Your task to perform on an android device: Open Yahoo.com Image 0: 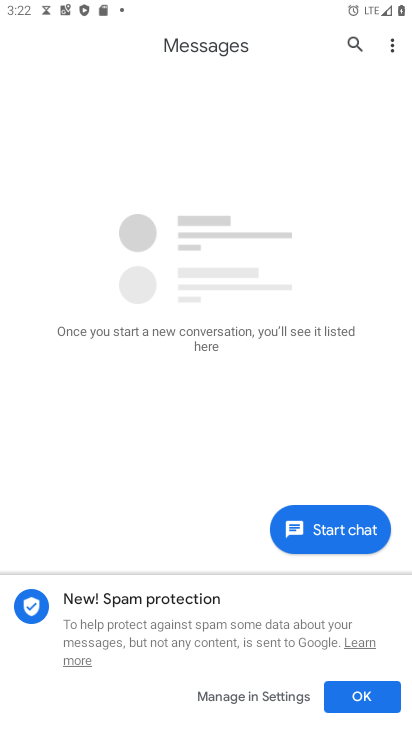
Step 0: press home button
Your task to perform on an android device: Open Yahoo.com Image 1: 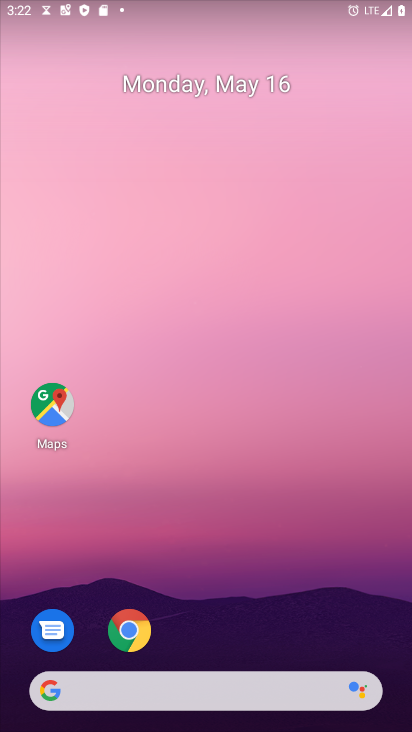
Step 1: drag from (213, 654) to (246, 18)
Your task to perform on an android device: Open Yahoo.com Image 2: 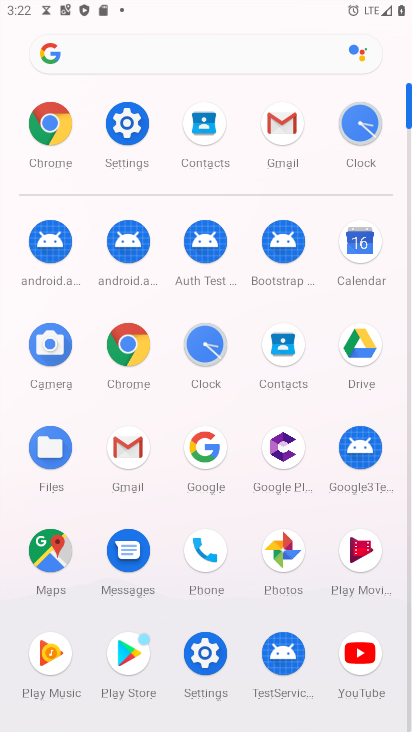
Step 2: click (124, 341)
Your task to perform on an android device: Open Yahoo.com Image 3: 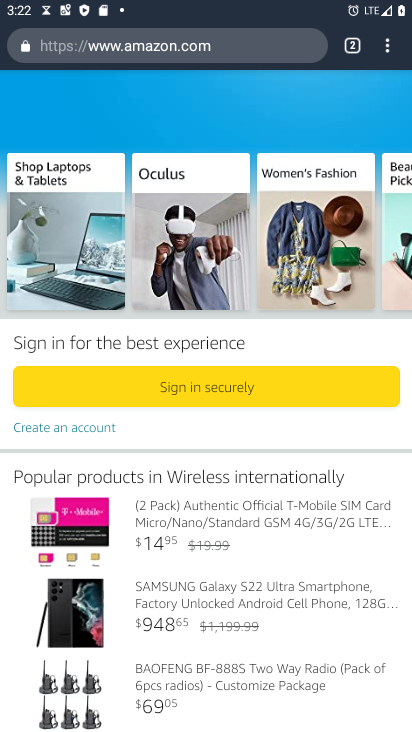
Step 3: click (339, 44)
Your task to perform on an android device: Open Yahoo.com Image 4: 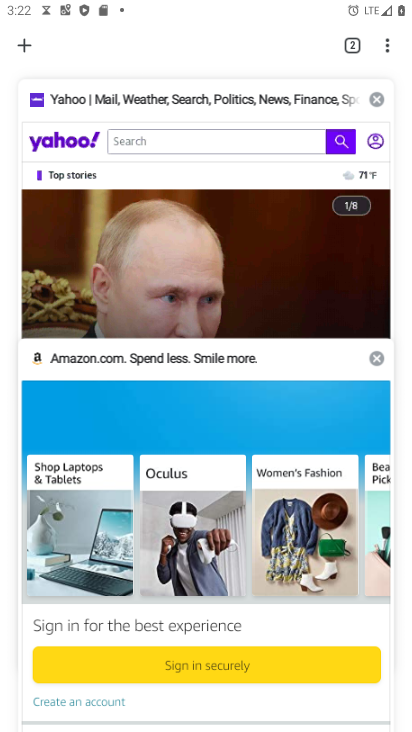
Step 4: click (228, 208)
Your task to perform on an android device: Open Yahoo.com Image 5: 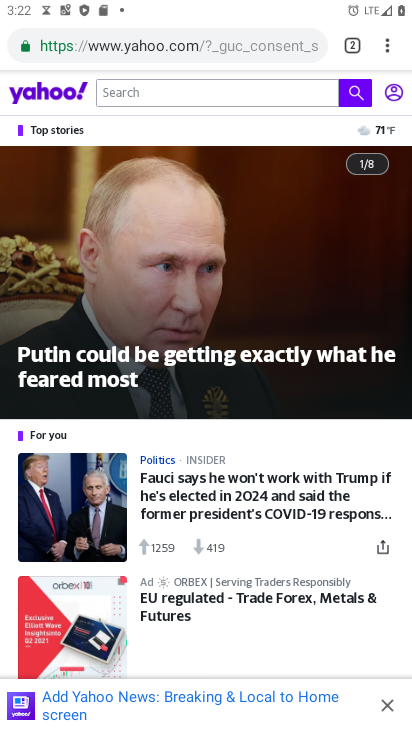
Step 5: task complete